Your task to perform on an android device: toggle airplane mode Image 0: 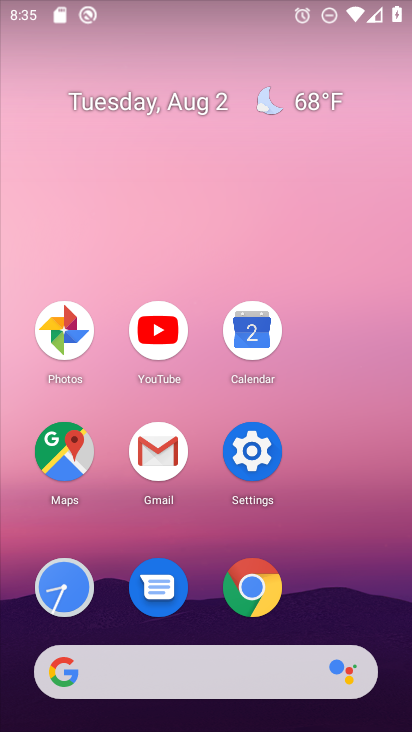
Step 0: click (259, 455)
Your task to perform on an android device: toggle airplane mode Image 1: 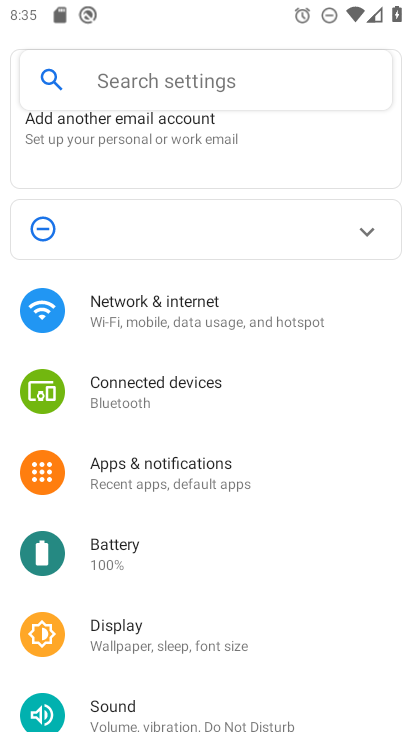
Step 1: click (166, 297)
Your task to perform on an android device: toggle airplane mode Image 2: 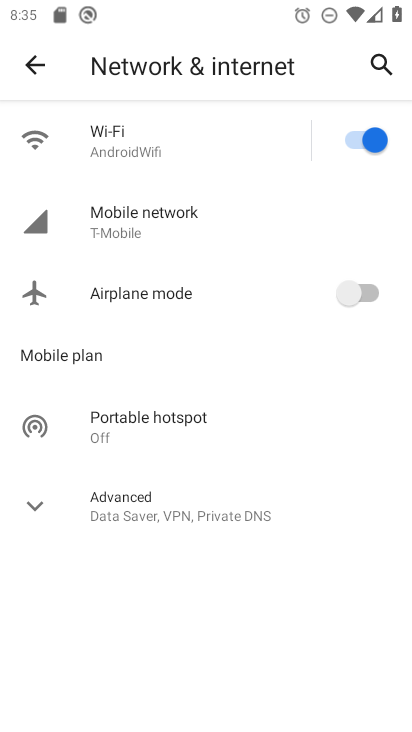
Step 2: click (355, 280)
Your task to perform on an android device: toggle airplane mode Image 3: 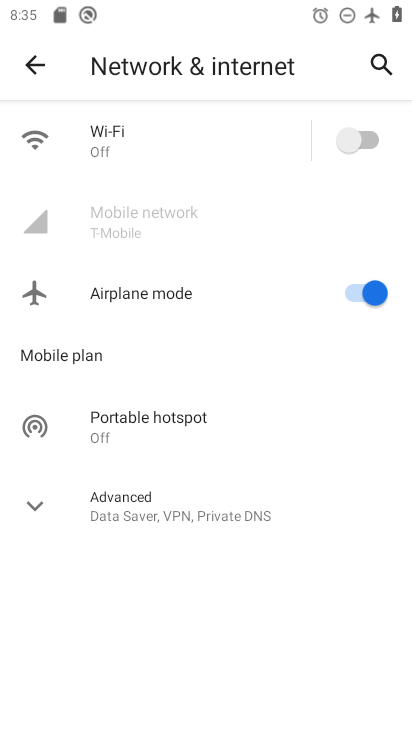
Step 3: task complete